Your task to perform on an android device: Do I have any events tomorrow? Image 0: 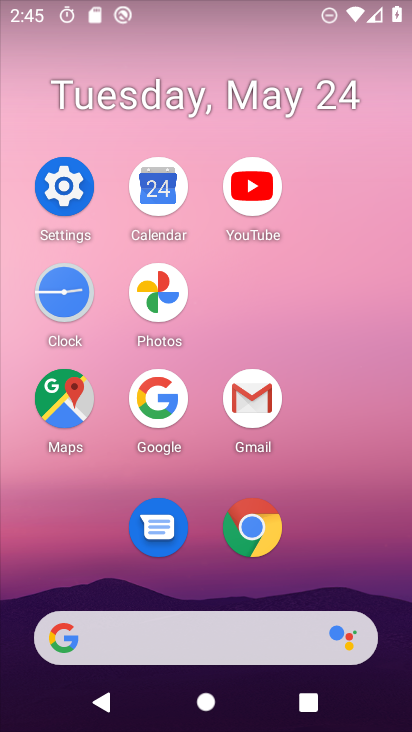
Step 0: click (169, 199)
Your task to perform on an android device: Do I have any events tomorrow? Image 1: 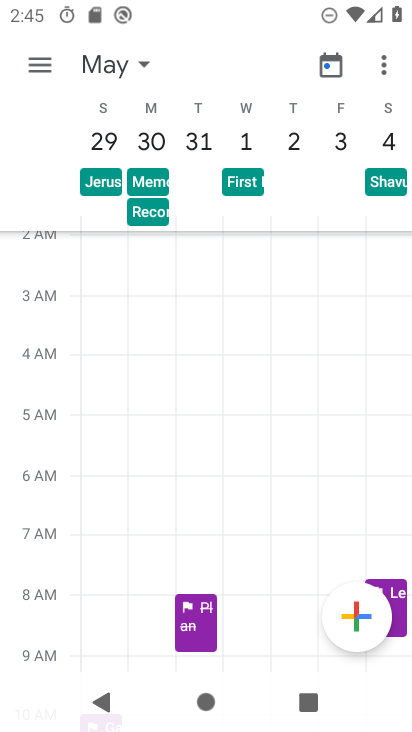
Step 1: drag from (166, 139) to (363, 128)
Your task to perform on an android device: Do I have any events tomorrow? Image 2: 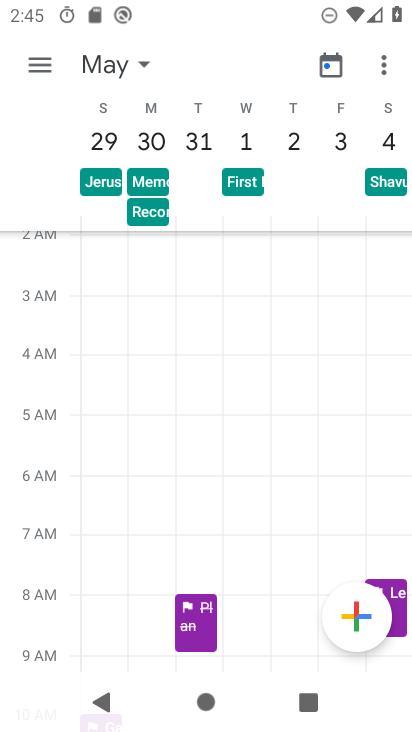
Step 2: drag from (107, 142) to (378, 136)
Your task to perform on an android device: Do I have any events tomorrow? Image 3: 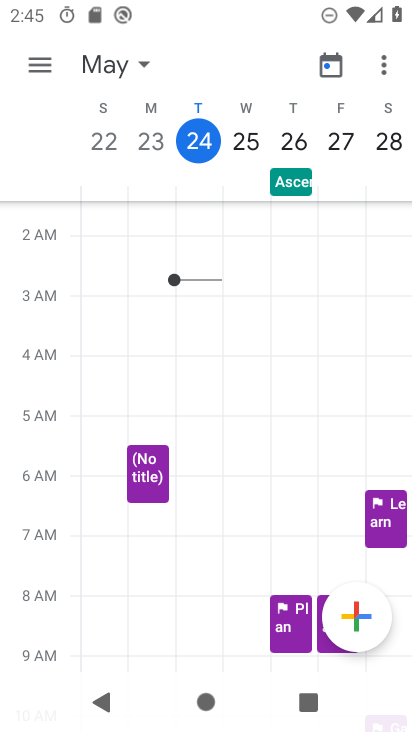
Step 3: click (252, 135)
Your task to perform on an android device: Do I have any events tomorrow? Image 4: 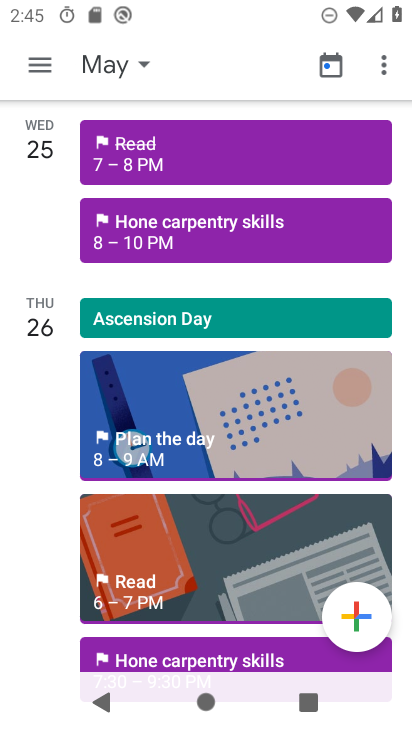
Step 4: task complete